Your task to perform on an android device: turn off sleep mode Image 0: 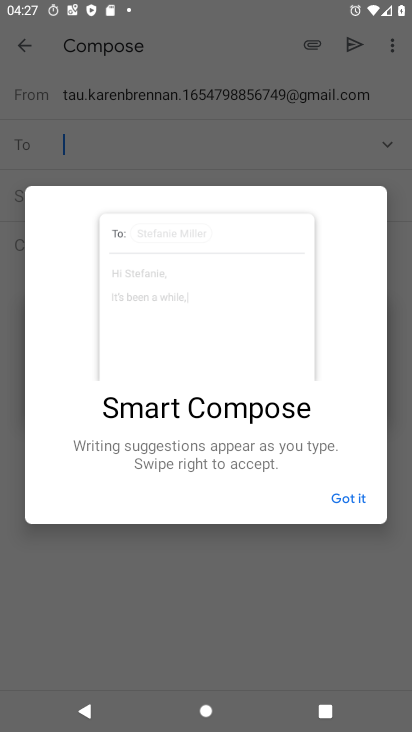
Step 0: press back button
Your task to perform on an android device: turn off sleep mode Image 1: 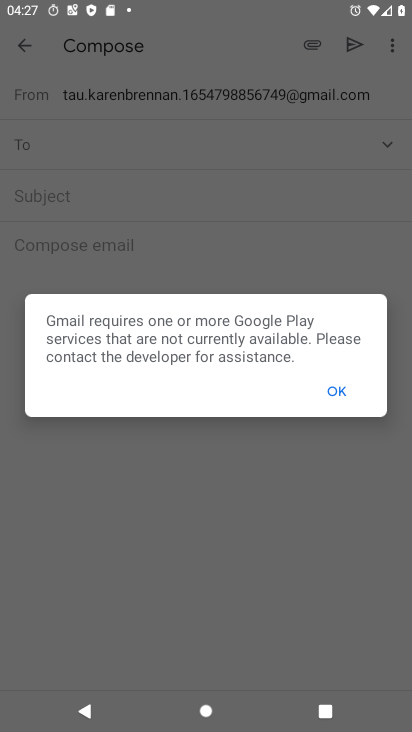
Step 1: press home button
Your task to perform on an android device: turn off sleep mode Image 2: 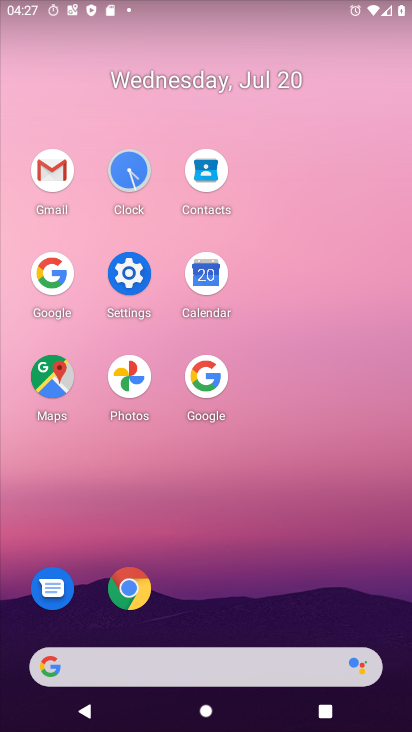
Step 2: click (128, 278)
Your task to perform on an android device: turn off sleep mode Image 3: 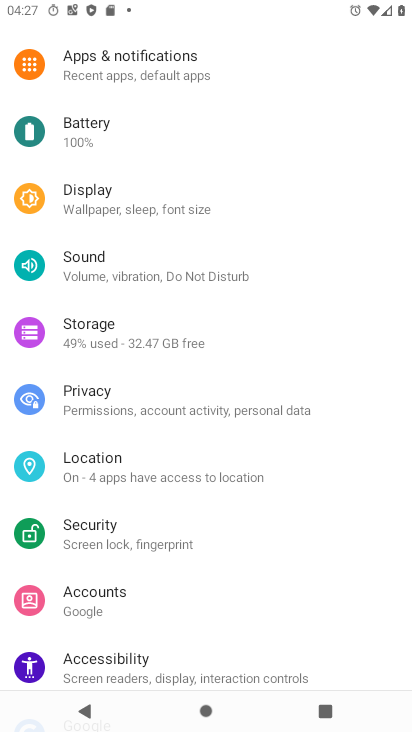
Step 3: click (155, 212)
Your task to perform on an android device: turn off sleep mode Image 4: 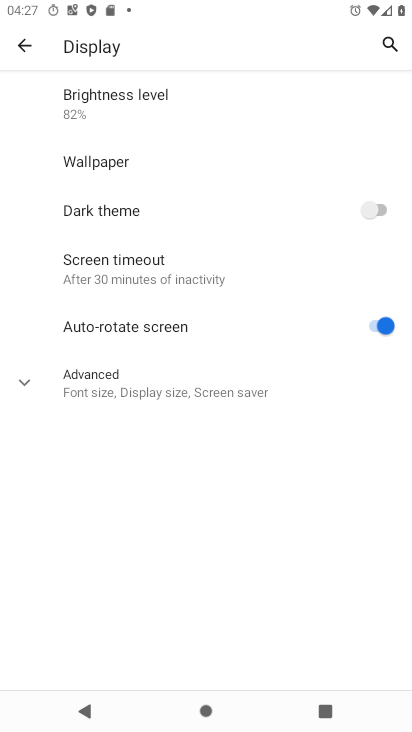
Step 4: click (157, 265)
Your task to perform on an android device: turn off sleep mode Image 5: 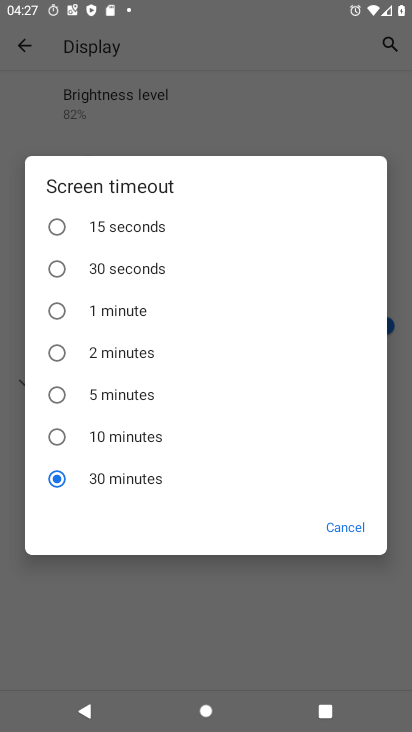
Step 5: task complete